Your task to perform on an android device: open sync settings in chrome Image 0: 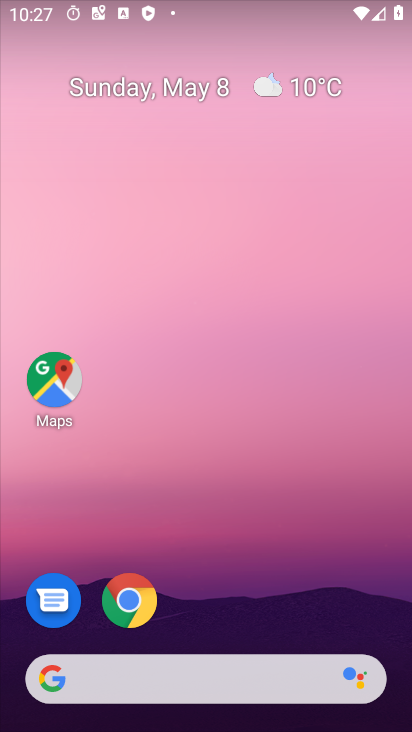
Step 0: drag from (206, 603) to (246, 264)
Your task to perform on an android device: open sync settings in chrome Image 1: 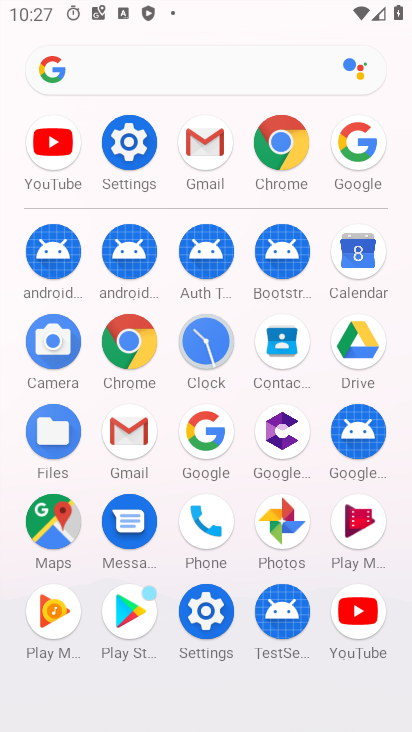
Step 1: click (294, 165)
Your task to perform on an android device: open sync settings in chrome Image 2: 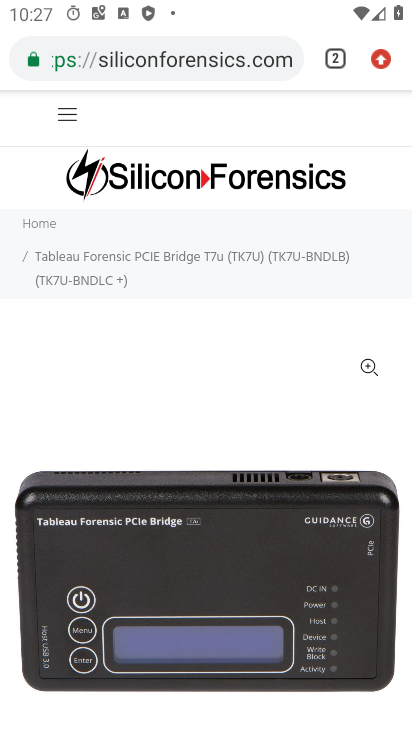
Step 2: click (376, 70)
Your task to perform on an android device: open sync settings in chrome Image 3: 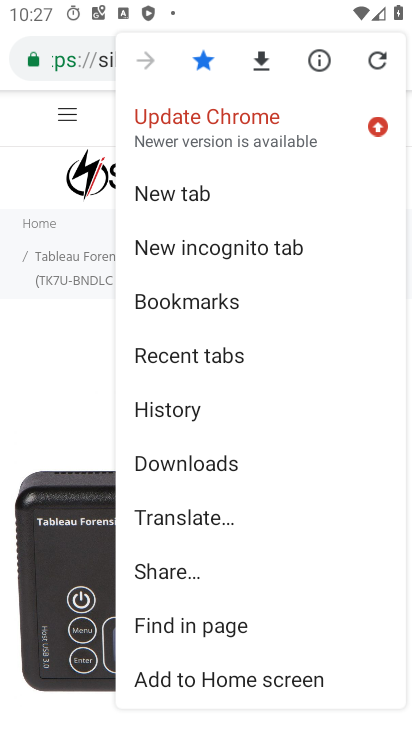
Step 3: drag from (290, 598) to (302, 362)
Your task to perform on an android device: open sync settings in chrome Image 4: 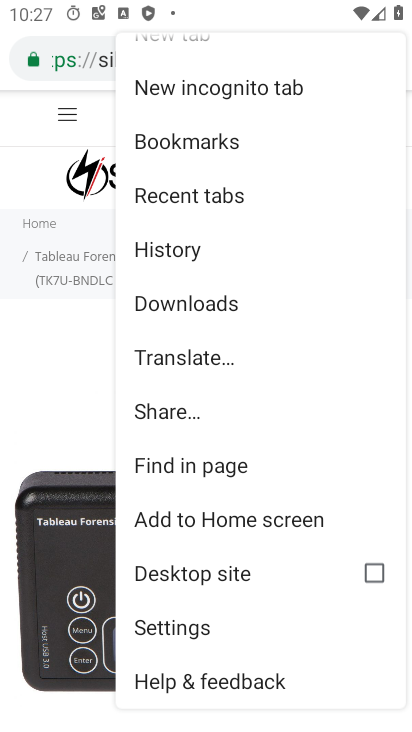
Step 4: click (219, 633)
Your task to perform on an android device: open sync settings in chrome Image 5: 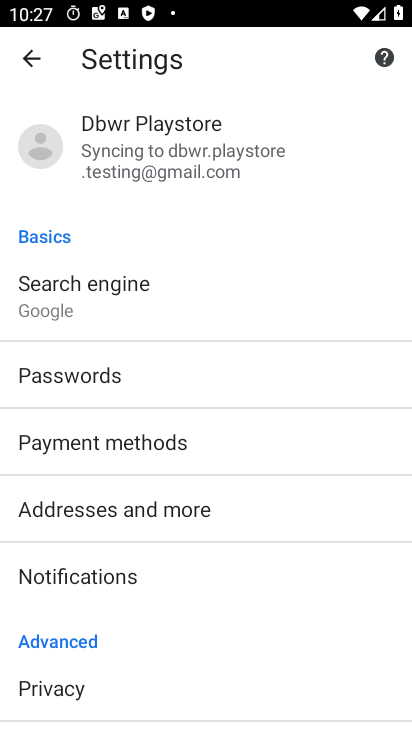
Step 5: click (221, 158)
Your task to perform on an android device: open sync settings in chrome Image 6: 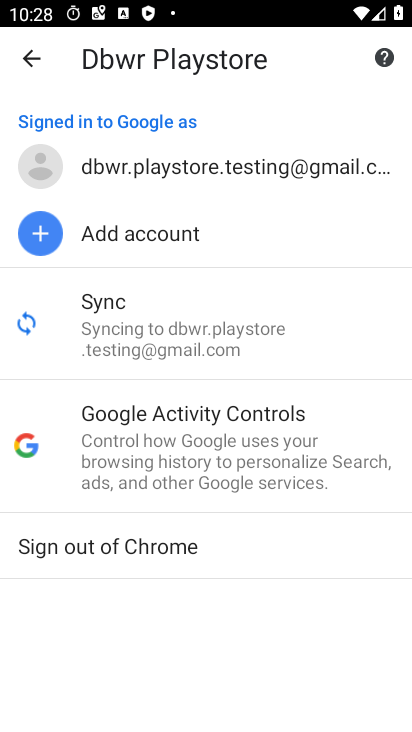
Step 6: click (214, 304)
Your task to perform on an android device: open sync settings in chrome Image 7: 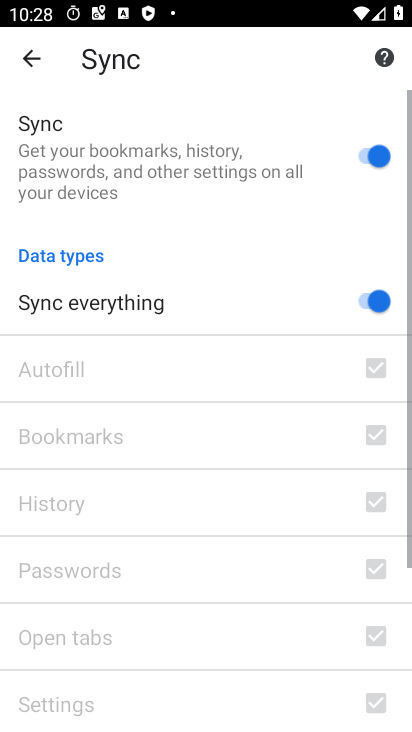
Step 7: task complete